Your task to perform on an android device: find snoozed emails in the gmail app Image 0: 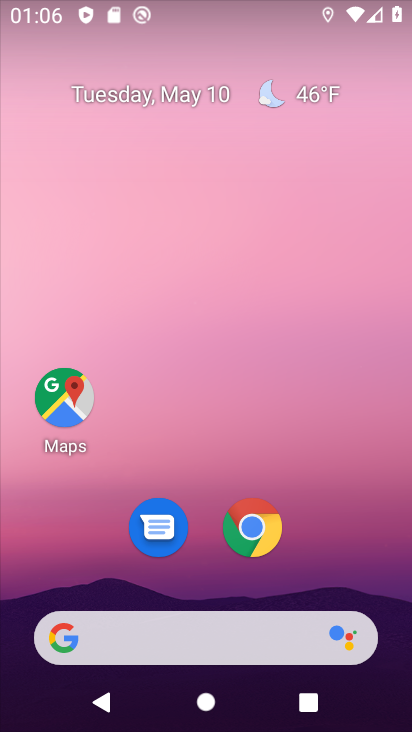
Step 0: drag from (317, 482) to (175, 140)
Your task to perform on an android device: find snoozed emails in the gmail app Image 1: 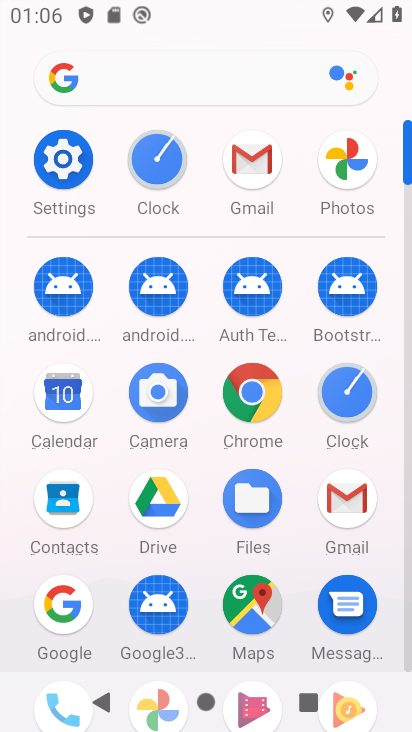
Step 1: click (339, 491)
Your task to perform on an android device: find snoozed emails in the gmail app Image 2: 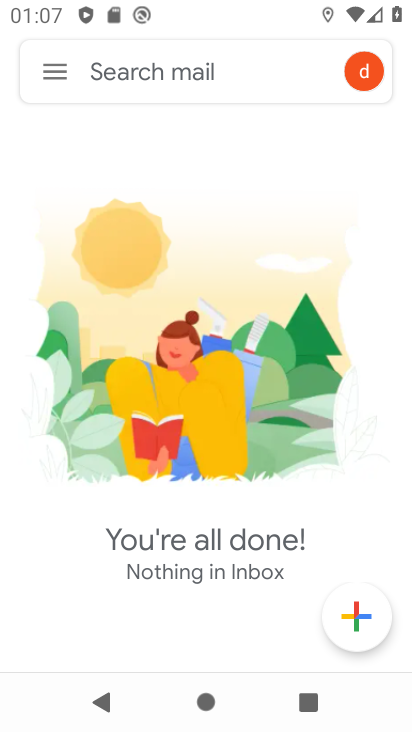
Step 2: click (62, 75)
Your task to perform on an android device: find snoozed emails in the gmail app Image 3: 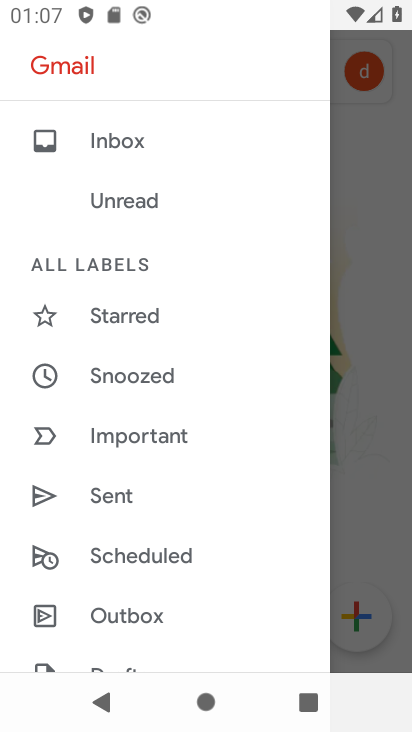
Step 3: click (106, 373)
Your task to perform on an android device: find snoozed emails in the gmail app Image 4: 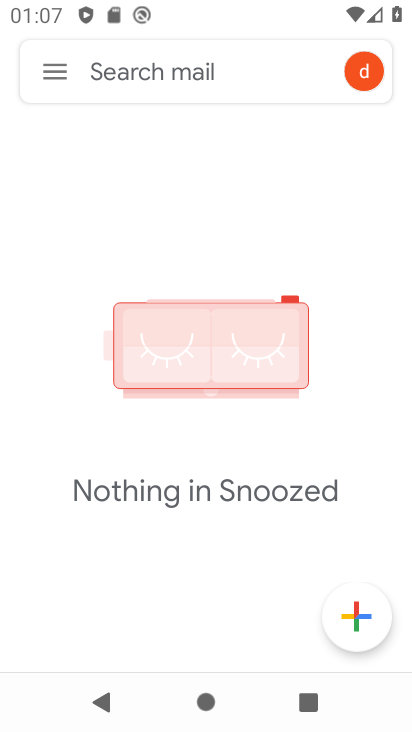
Step 4: task complete